Your task to perform on an android device: Open the web browser Image 0: 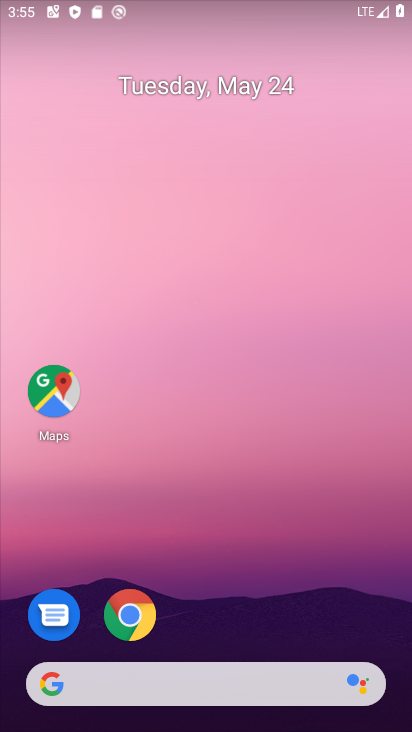
Step 0: click (136, 618)
Your task to perform on an android device: Open the web browser Image 1: 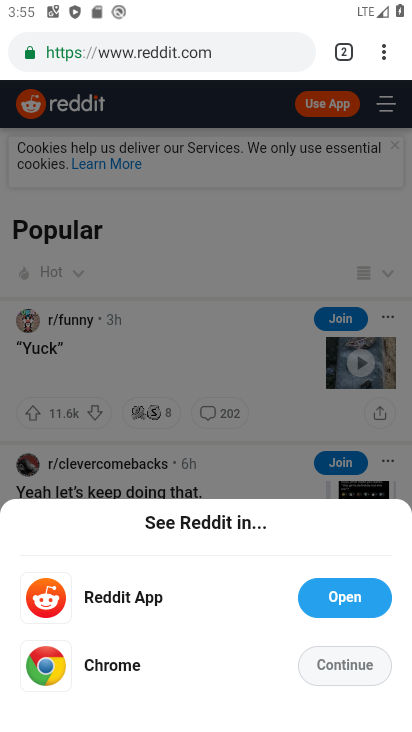
Step 1: task complete